Your task to perform on an android device: toggle airplane mode Image 0: 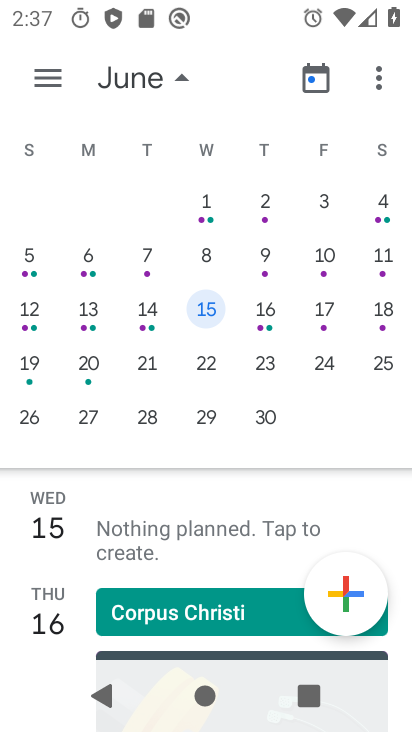
Step 0: press home button
Your task to perform on an android device: toggle airplane mode Image 1: 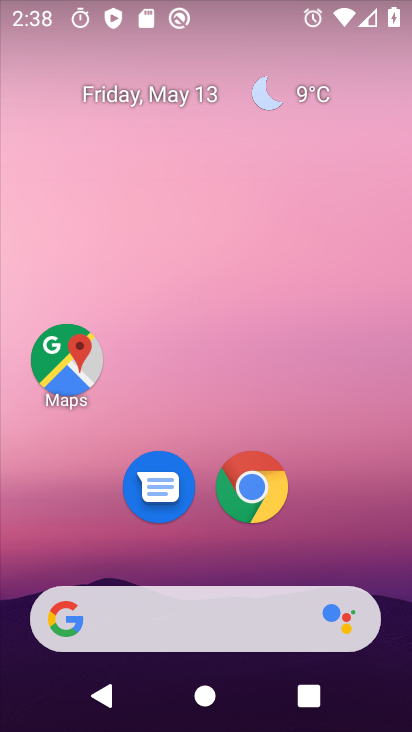
Step 1: drag from (221, 539) to (220, 101)
Your task to perform on an android device: toggle airplane mode Image 2: 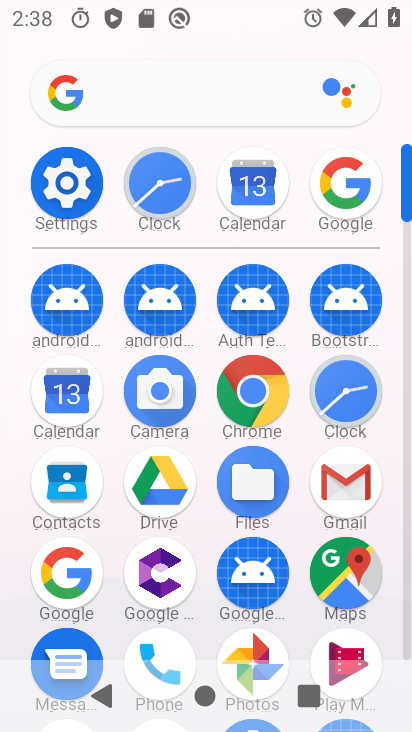
Step 2: click (74, 181)
Your task to perform on an android device: toggle airplane mode Image 3: 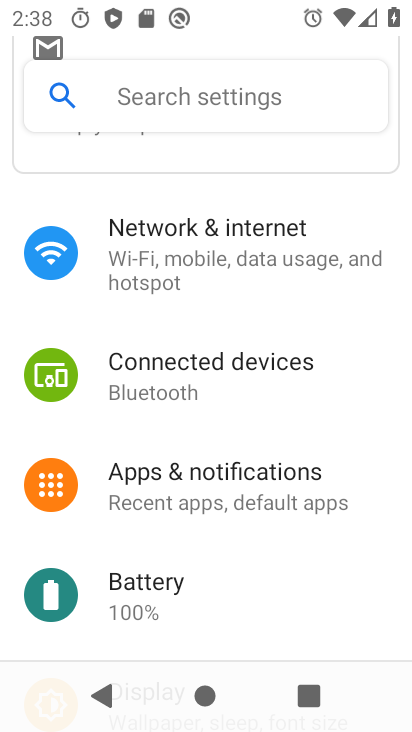
Step 3: drag from (206, 225) to (242, 363)
Your task to perform on an android device: toggle airplane mode Image 4: 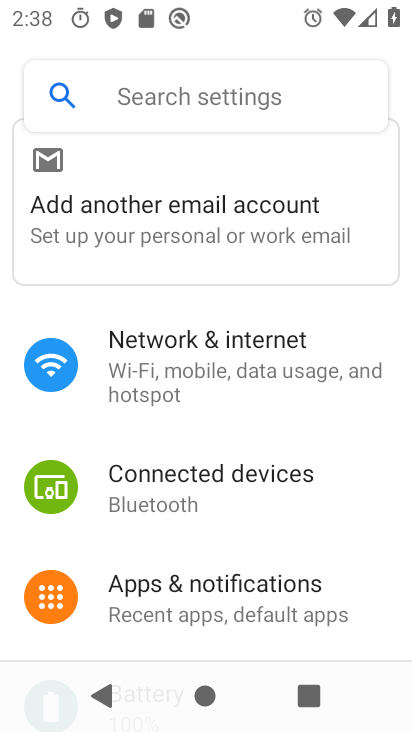
Step 4: click (192, 362)
Your task to perform on an android device: toggle airplane mode Image 5: 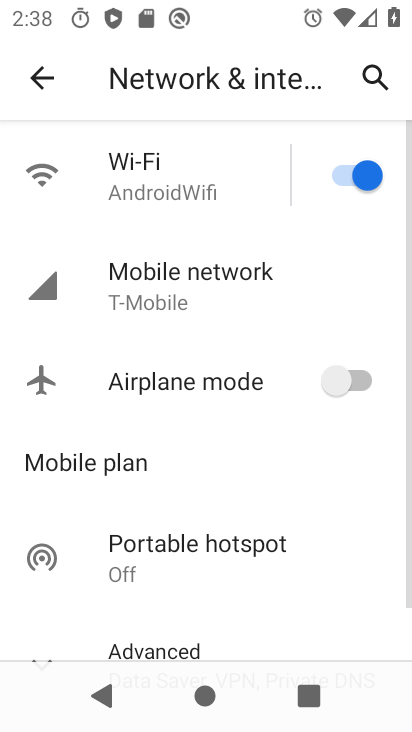
Step 5: click (346, 378)
Your task to perform on an android device: toggle airplane mode Image 6: 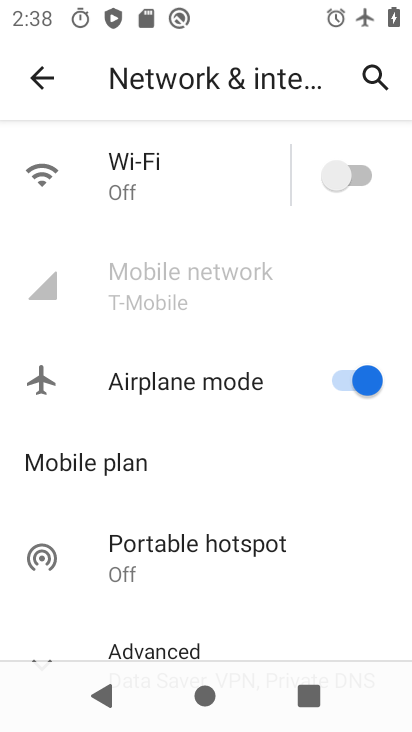
Step 6: task complete